Your task to perform on an android device: toggle location history Image 0: 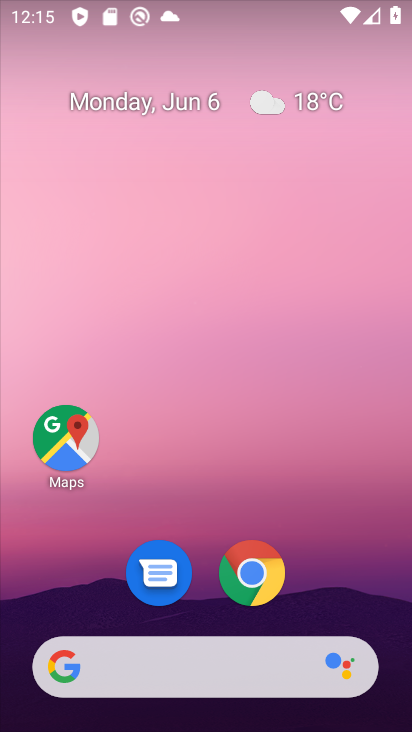
Step 0: drag from (90, 567) to (239, 173)
Your task to perform on an android device: toggle location history Image 1: 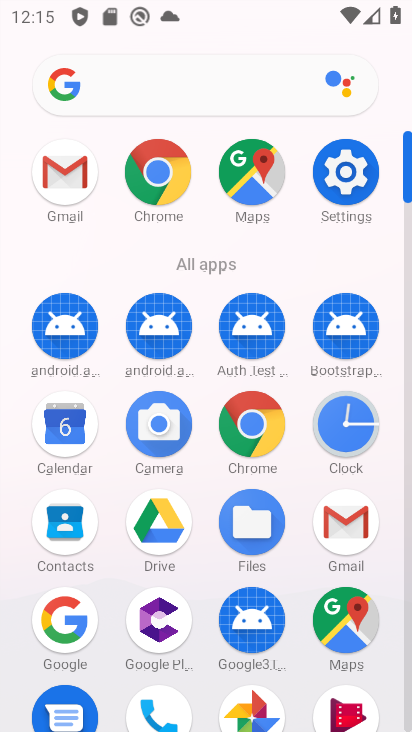
Step 1: click (318, 157)
Your task to perform on an android device: toggle location history Image 2: 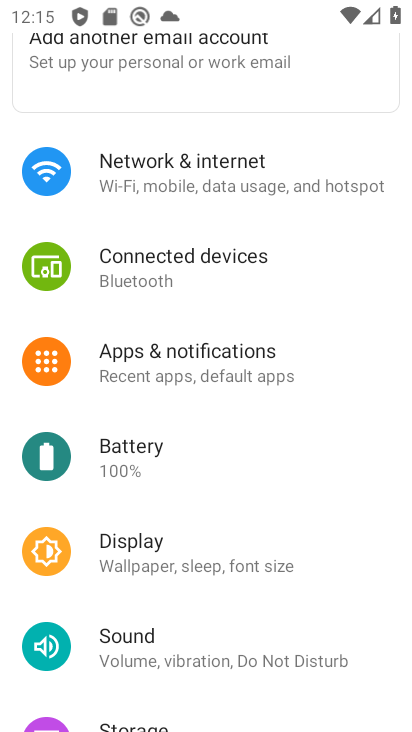
Step 2: drag from (162, 573) to (313, 188)
Your task to perform on an android device: toggle location history Image 3: 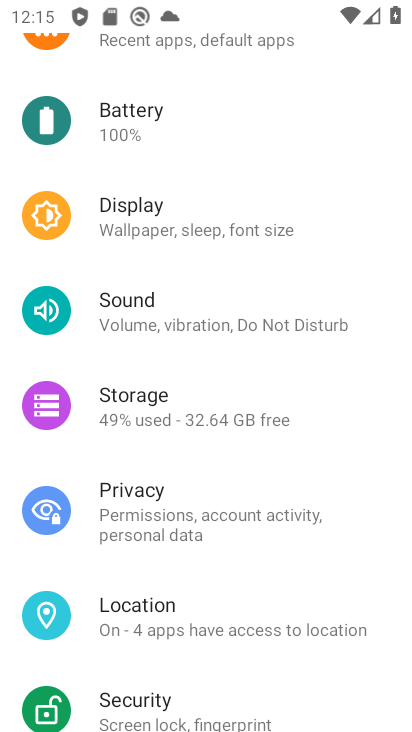
Step 3: click (160, 603)
Your task to perform on an android device: toggle location history Image 4: 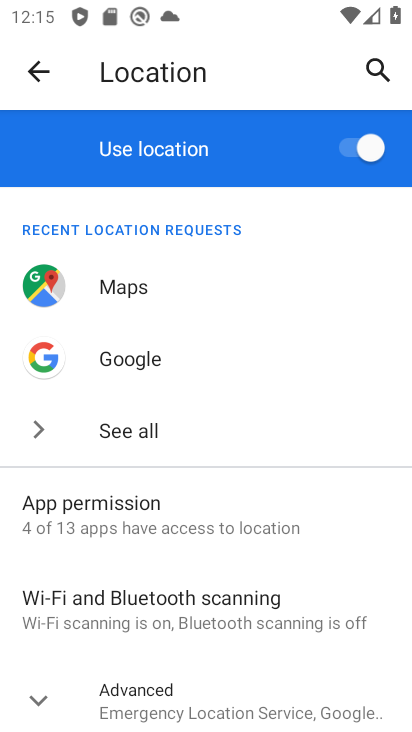
Step 4: click (185, 690)
Your task to perform on an android device: toggle location history Image 5: 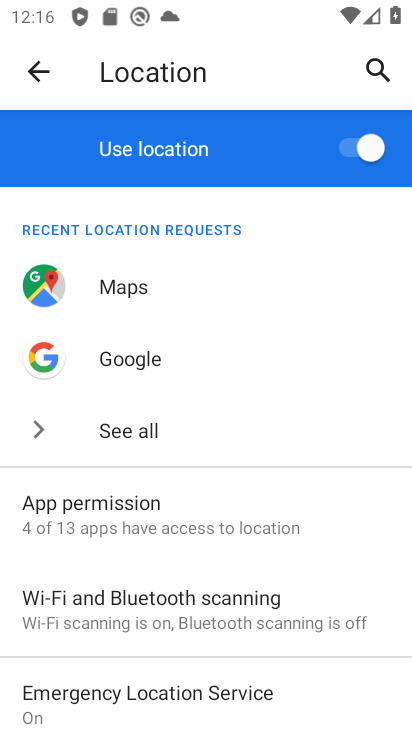
Step 5: drag from (186, 689) to (344, 305)
Your task to perform on an android device: toggle location history Image 6: 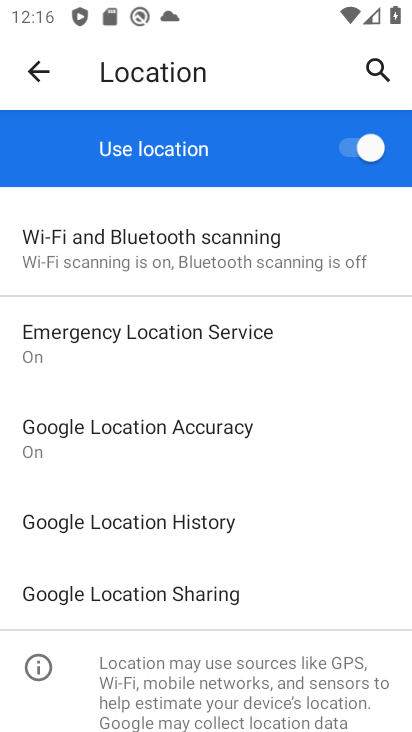
Step 6: click (240, 533)
Your task to perform on an android device: toggle location history Image 7: 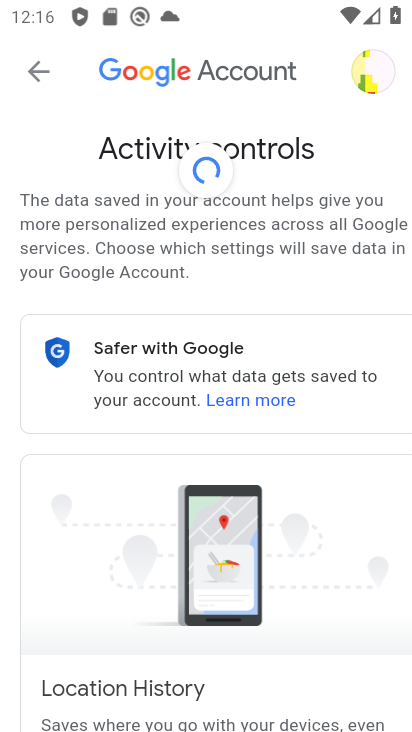
Step 7: drag from (176, 627) to (322, 260)
Your task to perform on an android device: toggle location history Image 8: 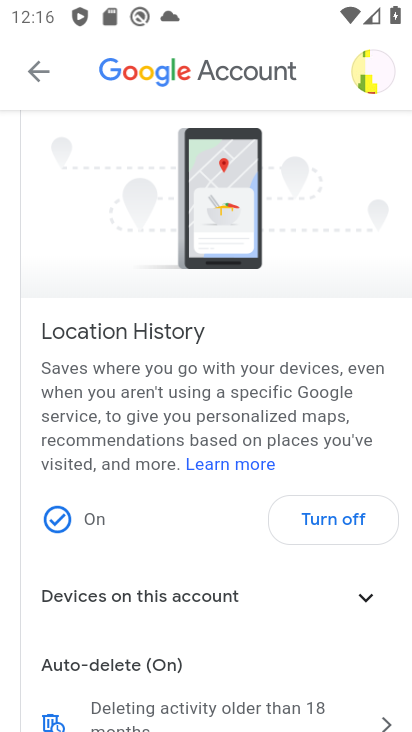
Step 8: click (348, 521)
Your task to perform on an android device: toggle location history Image 9: 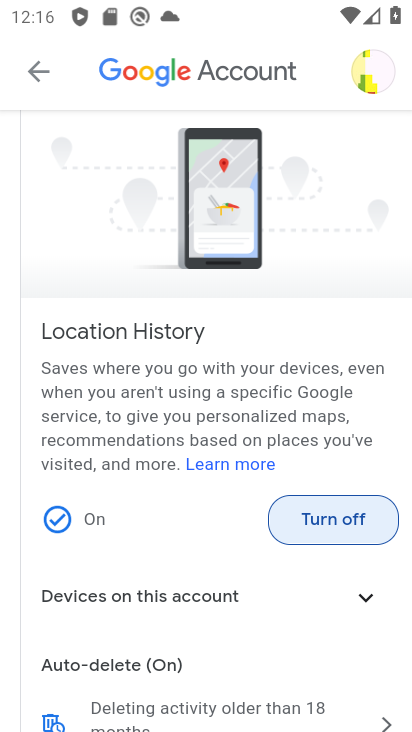
Step 9: click (341, 518)
Your task to perform on an android device: toggle location history Image 10: 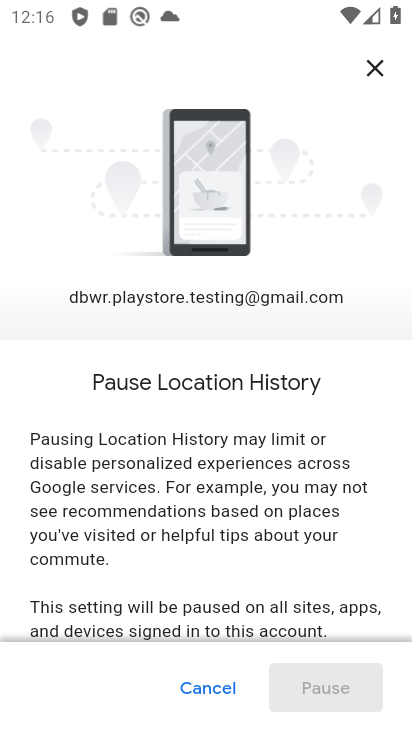
Step 10: drag from (283, 481) to (399, 197)
Your task to perform on an android device: toggle location history Image 11: 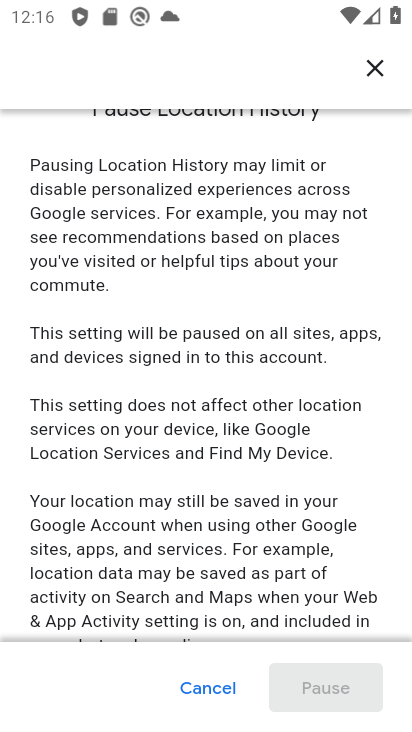
Step 11: drag from (220, 547) to (353, 188)
Your task to perform on an android device: toggle location history Image 12: 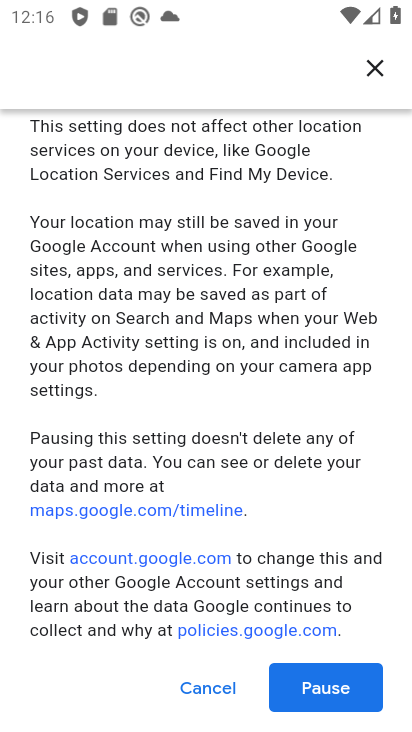
Step 12: drag from (190, 479) to (317, 151)
Your task to perform on an android device: toggle location history Image 13: 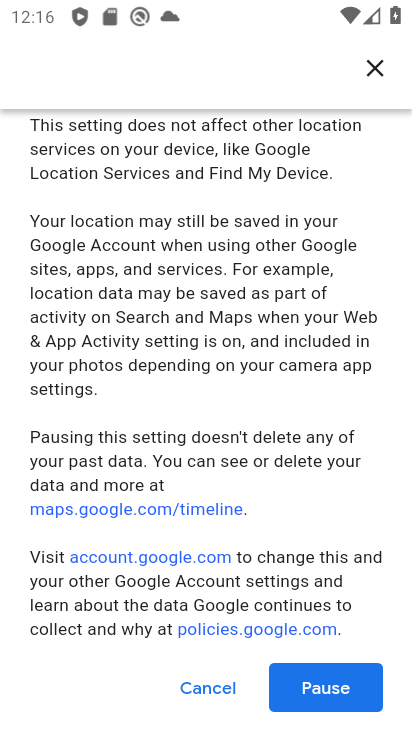
Step 13: click (334, 685)
Your task to perform on an android device: toggle location history Image 14: 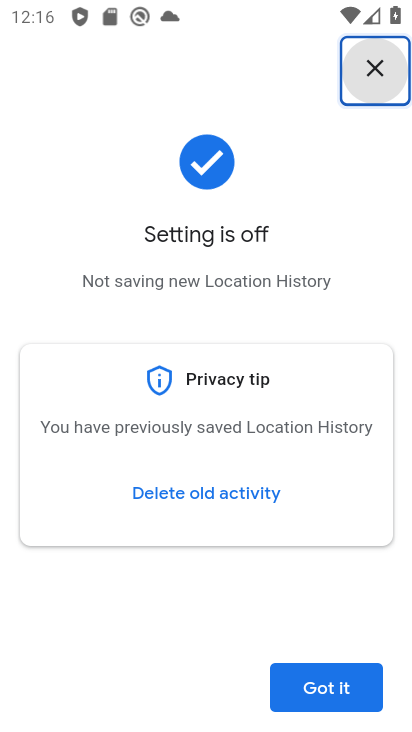
Step 14: click (333, 684)
Your task to perform on an android device: toggle location history Image 15: 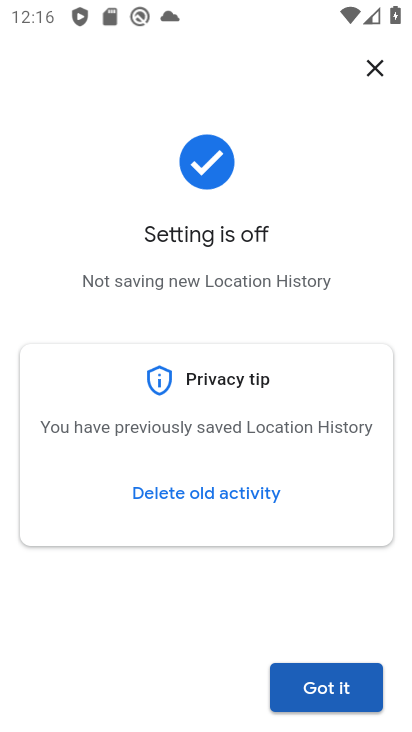
Step 15: click (334, 685)
Your task to perform on an android device: toggle location history Image 16: 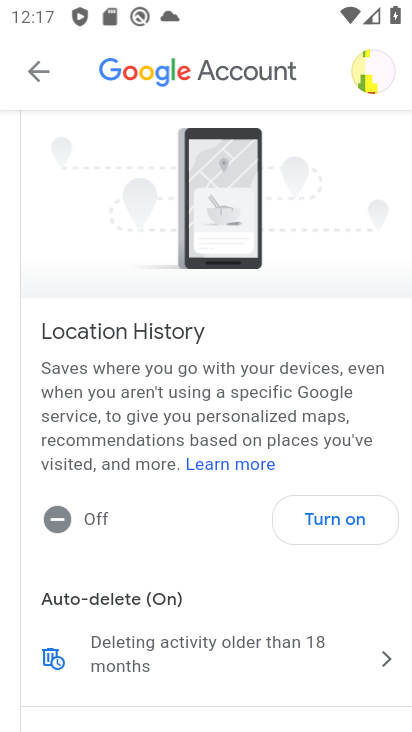
Step 16: task complete